Your task to perform on an android device: Open eBay Image 0: 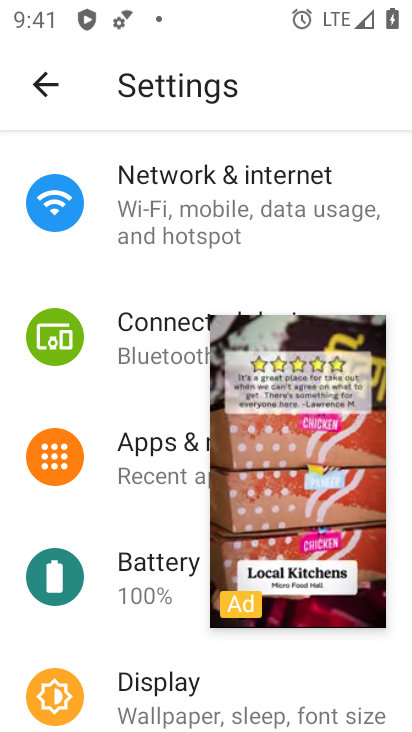
Step 0: click (331, 399)
Your task to perform on an android device: Open eBay Image 1: 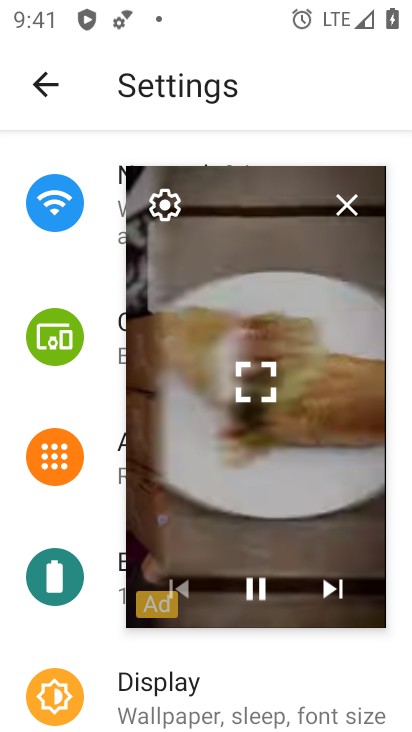
Step 1: click (351, 214)
Your task to perform on an android device: Open eBay Image 2: 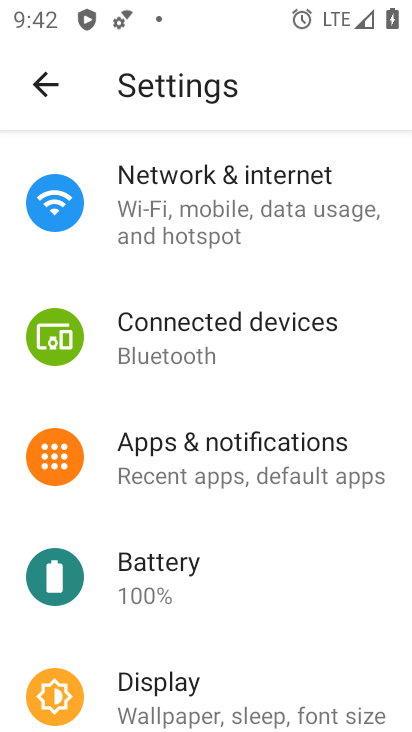
Step 2: press home button
Your task to perform on an android device: Open eBay Image 3: 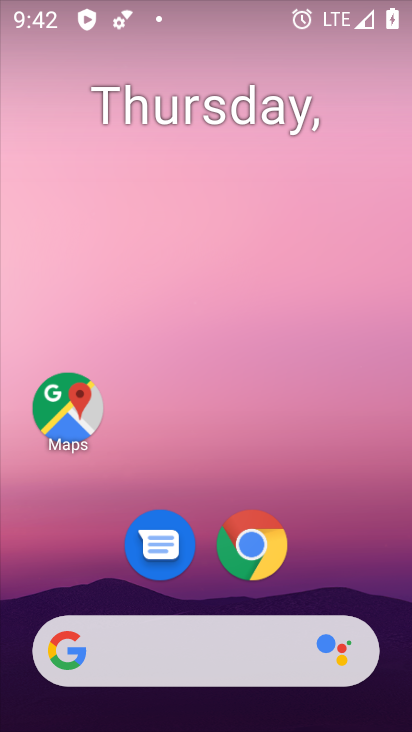
Step 3: click (252, 556)
Your task to perform on an android device: Open eBay Image 4: 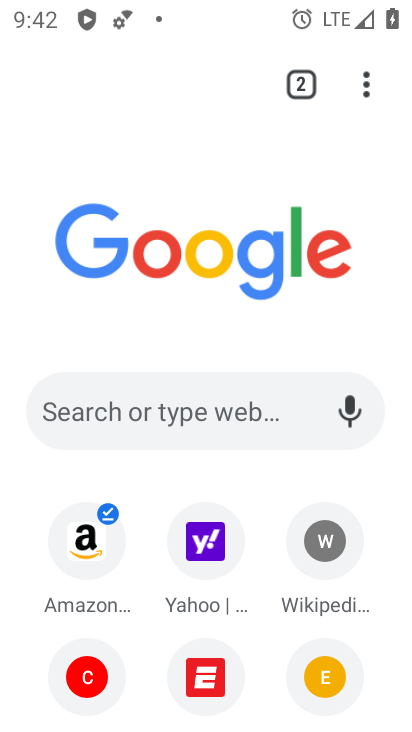
Step 4: click (161, 413)
Your task to perform on an android device: Open eBay Image 5: 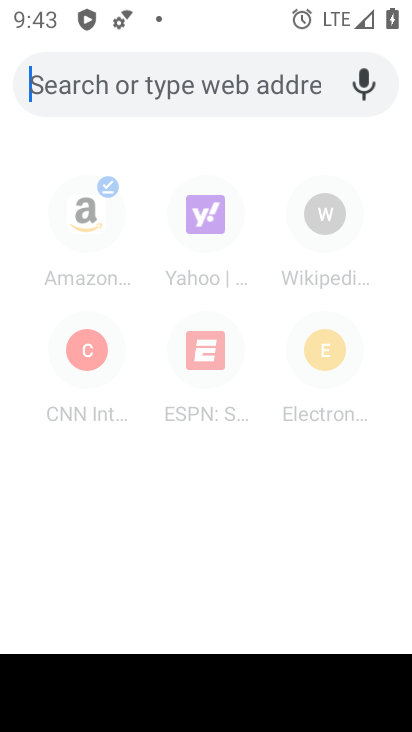
Step 5: type "ebay"
Your task to perform on an android device: Open eBay Image 6: 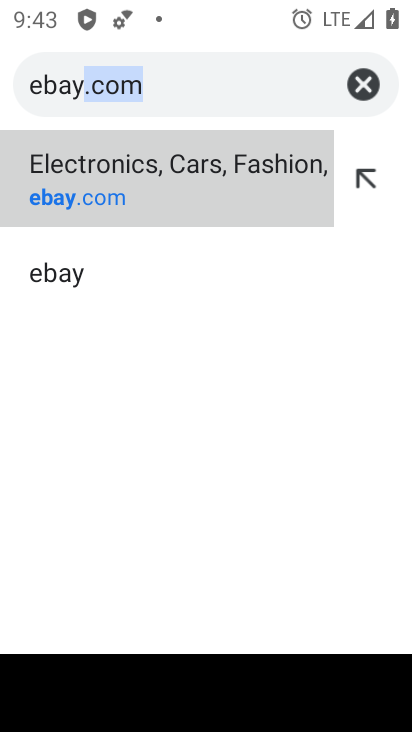
Step 6: click (75, 267)
Your task to perform on an android device: Open eBay Image 7: 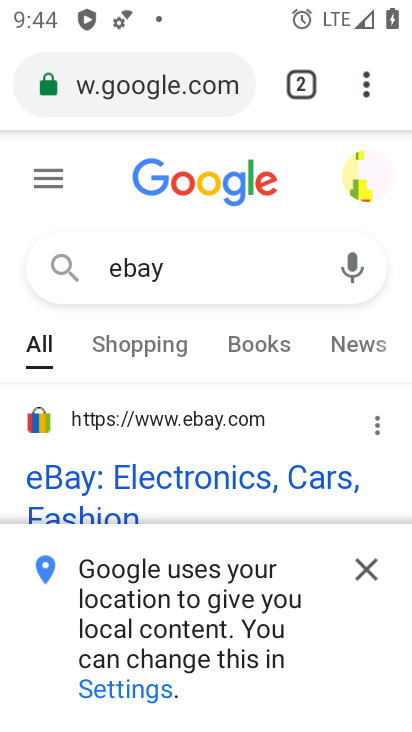
Step 7: task complete